Your task to perform on an android device: open a new tab in the chrome app Image 0: 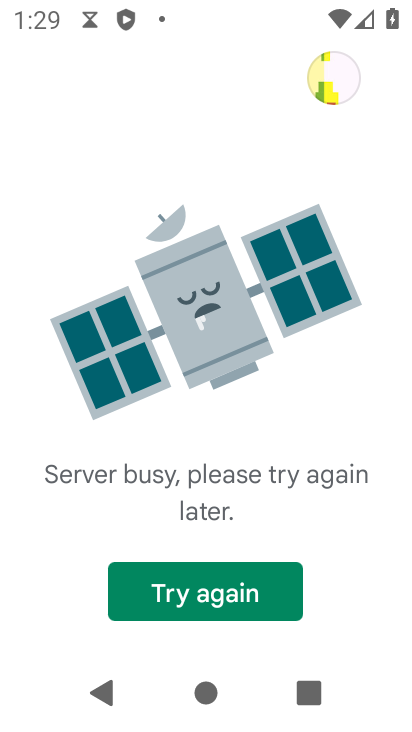
Step 0: press home button
Your task to perform on an android device: open a new tab in the chrome app Image 1: 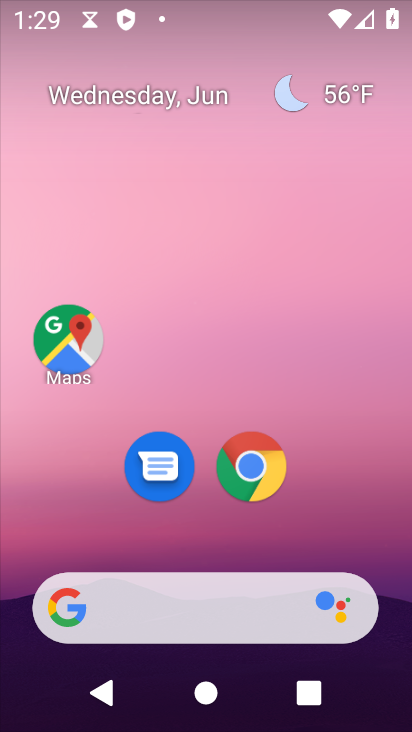
Step 1: click (259, 464)
Your task to perform on an android device: open a new tab in the chrome app Image 2: 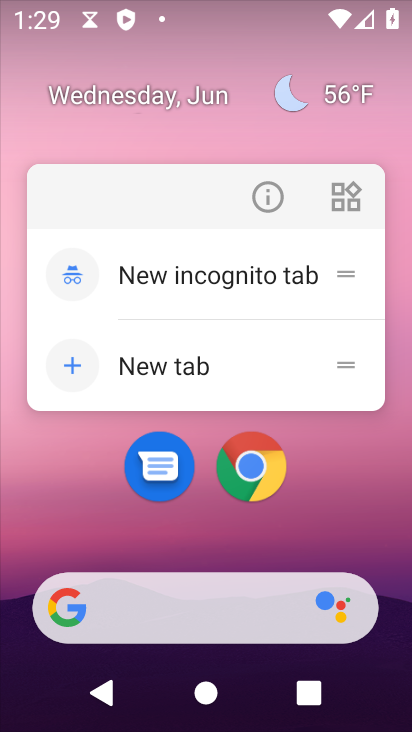
Step 2: click (245, 450)
Your task to perform on an android device: open a new tab in the chrome app Image 3: 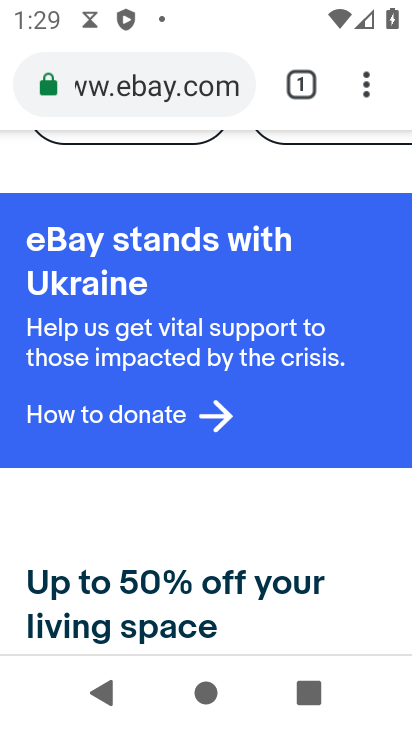
Step 3: task complete